Your task to perform on an android device: Go to sound settings Image 0: 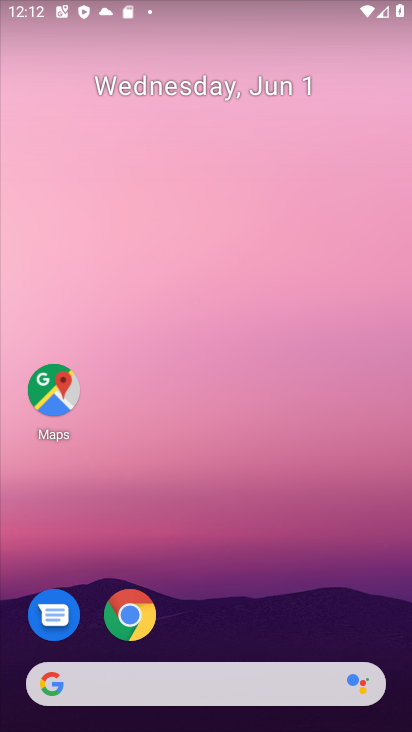
Step 0: task complete